Your task to perform on an android device: Check the settings for the Twitter app Image 0: 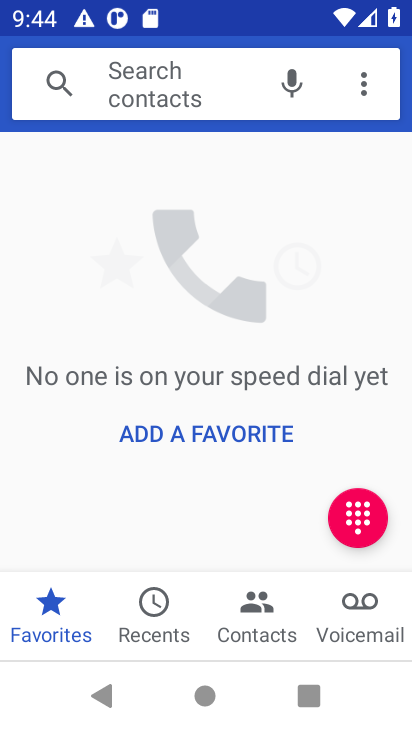
Step 0: press home button
Your task to perform on an android device: Check the settings for the Twitter app Image 1: 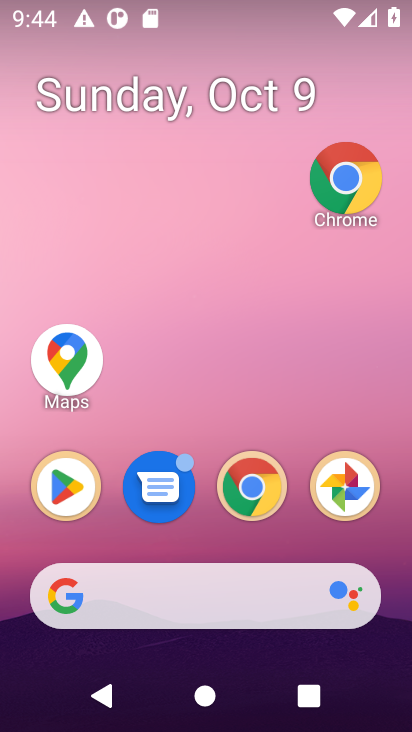
Step 1: task complete